Your task to perform on an android device: toggle javascript in the chrome app Image 0: 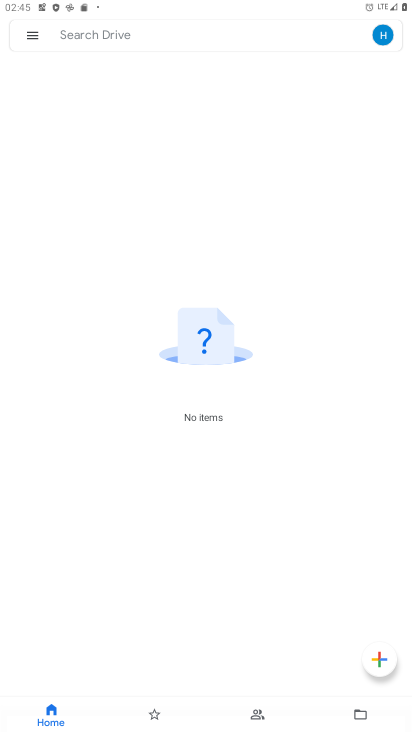
Step 0: press home button
Your task to perform on an android device: toggle javascript in the chrome app Image 1: 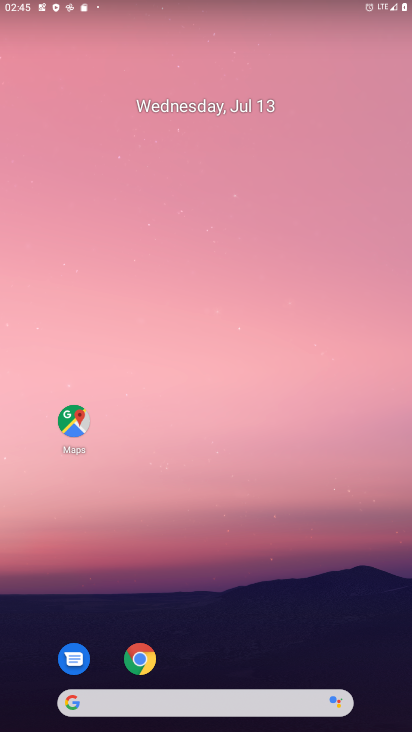
Step 1: drag from (213, 703) to (246, 260)
Your task to perform on an android device: toggle javascript in the chrome app Image 2: 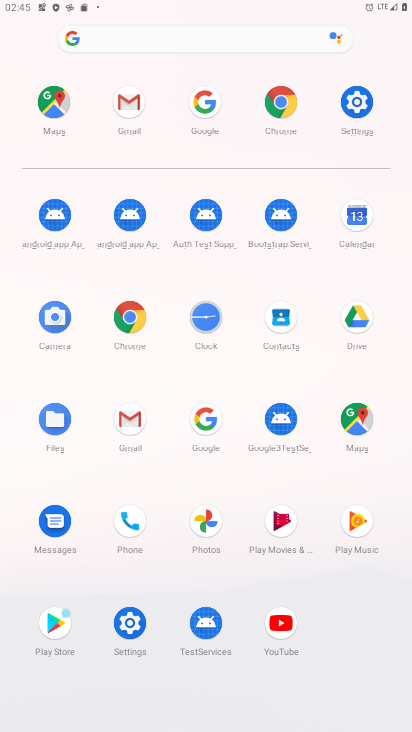
Step 2: click (129, 309)
Your task to perform on an android device: toggle javascript in the chrome app Image 3: 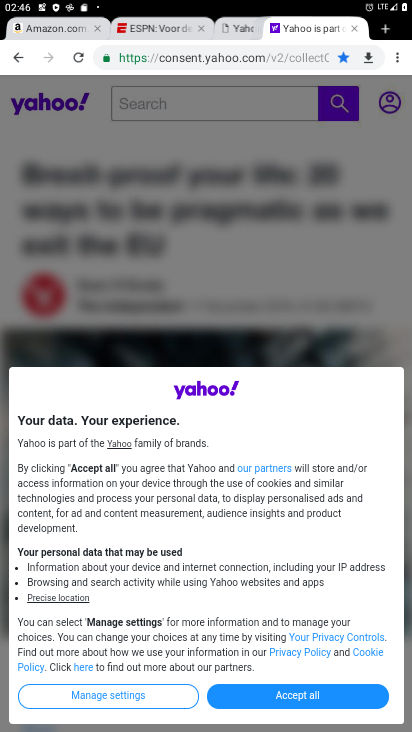
Step 3: click (398, 59)
Your task to perform on an android device: toggle javascript in the chrome app Image 4: 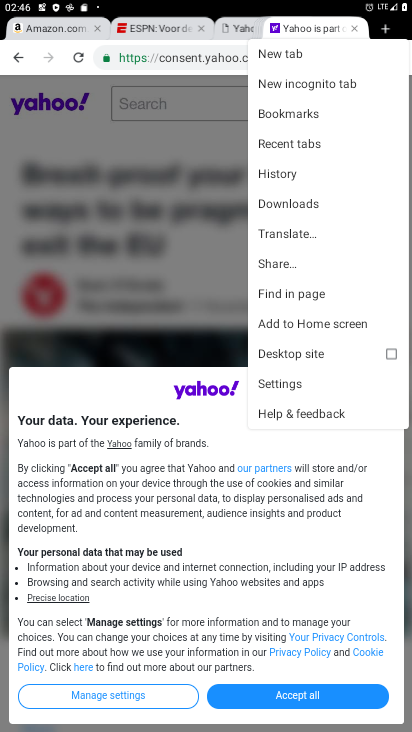
Step 4: click (278, 380)
Your task to perform on an android device: toggle javascript in the chrome app Image 5: 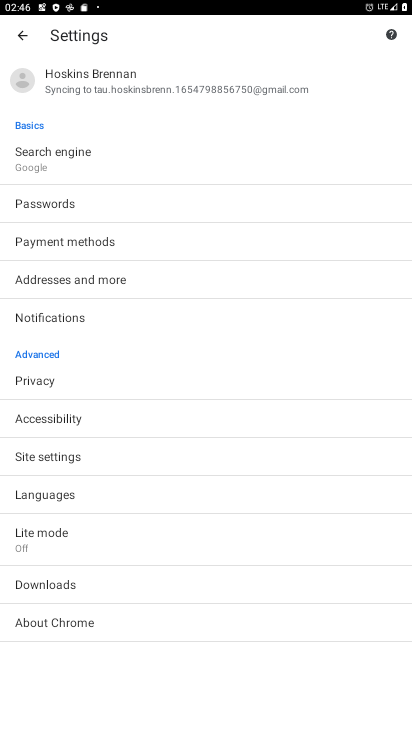
Step 5: click (43, 454)
Your task to perform on an android device: toggle javascript in the chrome app Image 6: 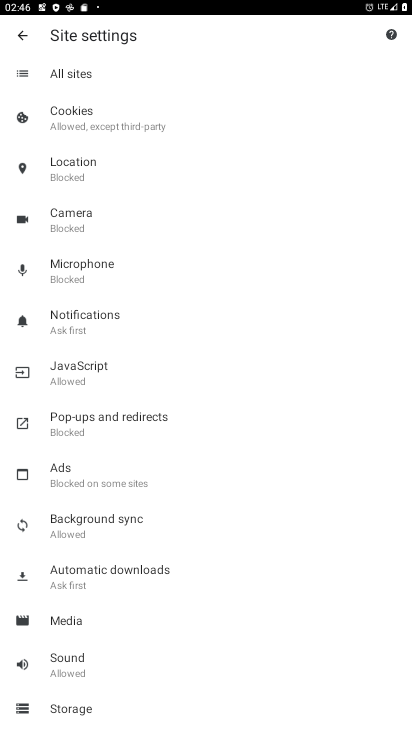
Step 6: click (84, 364)
Your task to perform on an android device: toggle javascript in the chrome app Image 7: 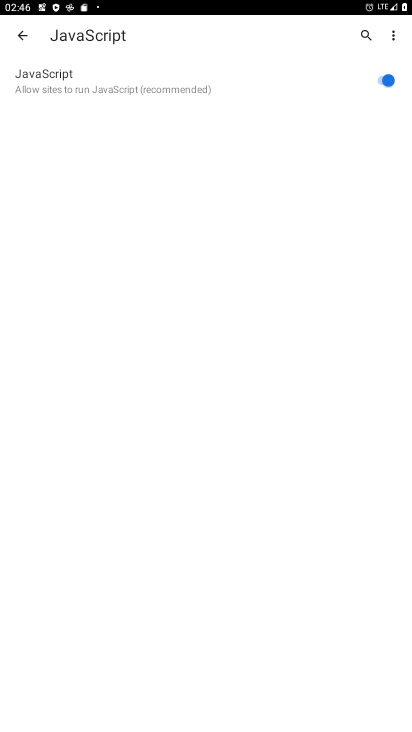
Step 7: click (382, 83)
Your task to perform on an android device: toggle javascript in the chrome app Image 8: 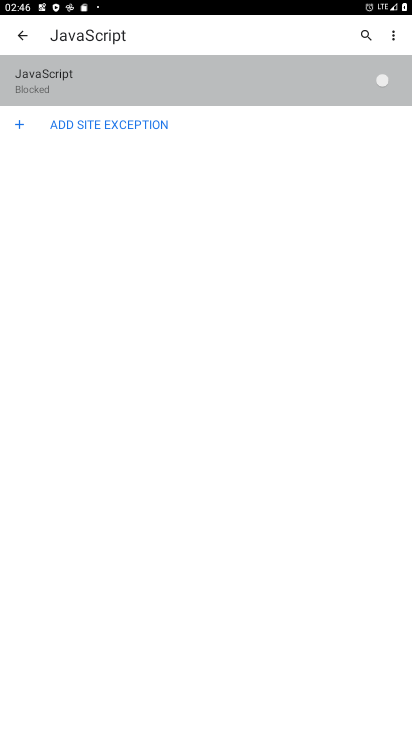
Step 8: click (382, 83)
Your task to perform on an android device: toggle javascript in the chrome app Image 9: 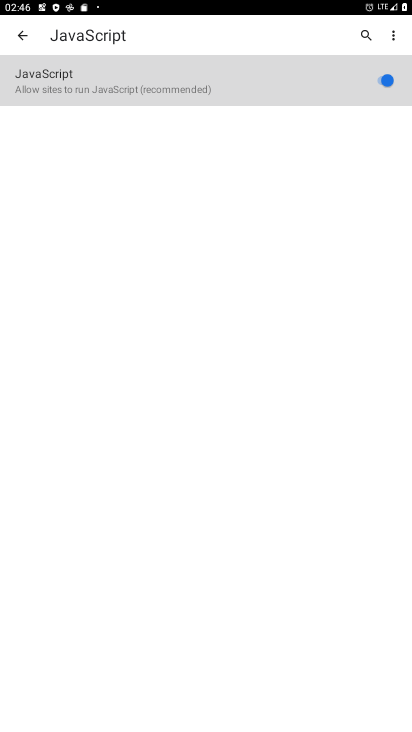
Step 9: task complete